Your task to perform on an android device: snooze an email in the gmail app Image 0: 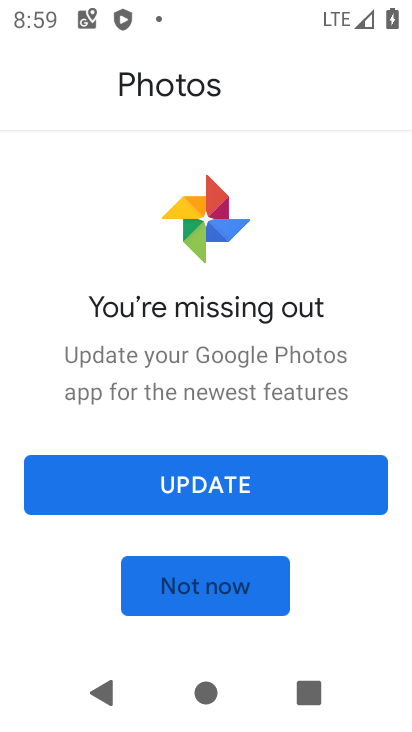
Step 0: press home button
Your task to perform on an android device: snooze an email in the gmail app Image 1: 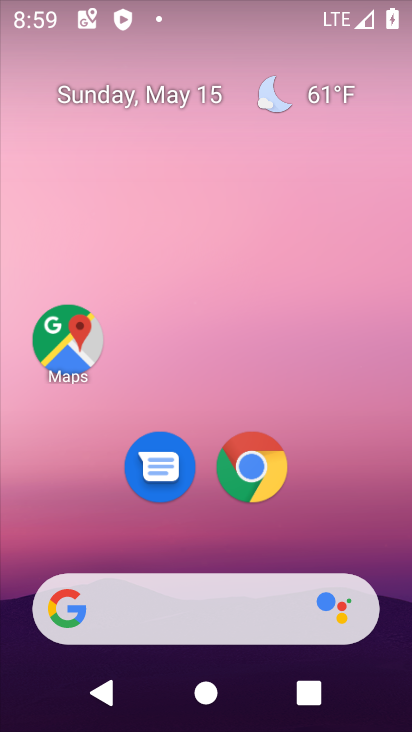
Step 1: drag from (198, 531) to (189, 16)
Your task to perform on an android device: snooze an email in the gmail app Image 2: 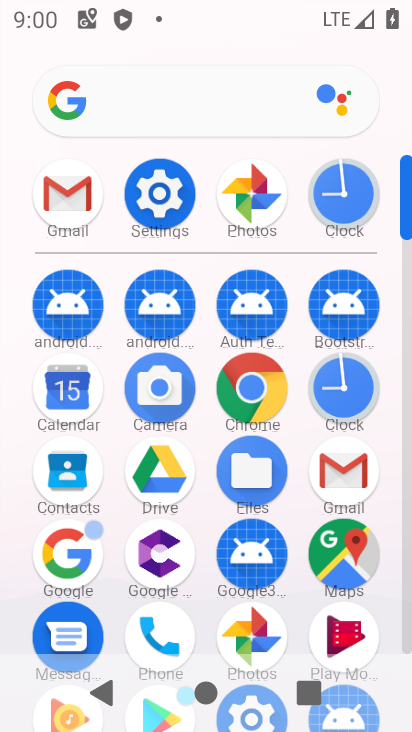
Step 2: click (54, 187)
Your task to perform on an android device: snooze an email in the gmail app Image 3: 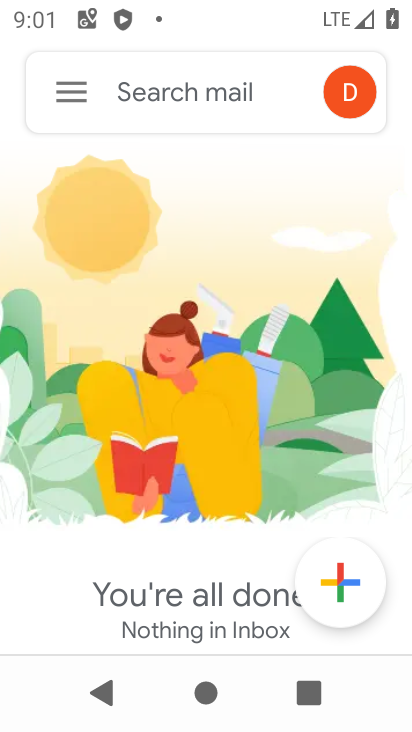
Step 3: task complete